Your task to perform on an android device: Go to ESPN.com Image 0: 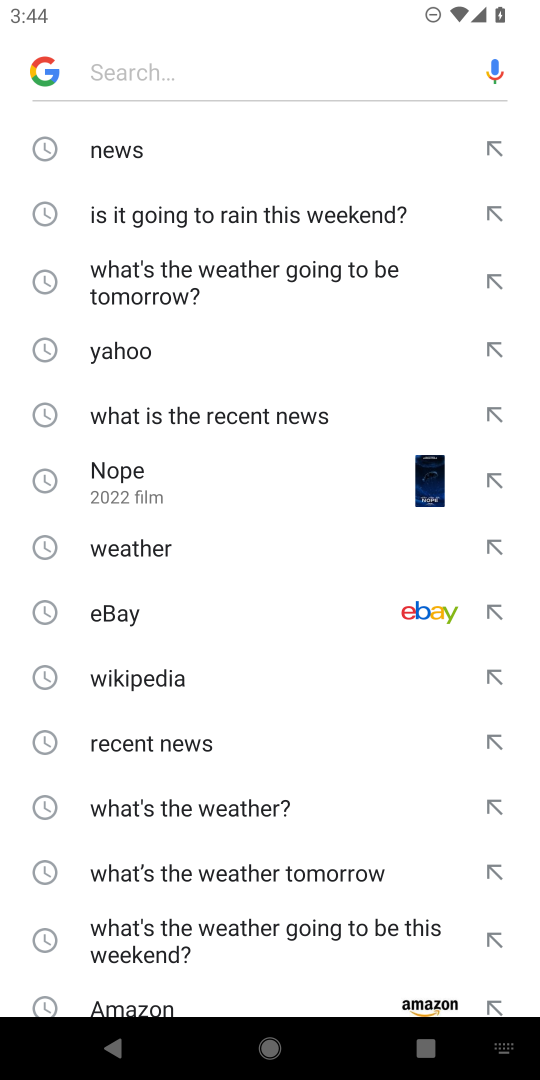
Step 0: press home button
Your task to perform on an android device: Go to ESPN.com Image 1: 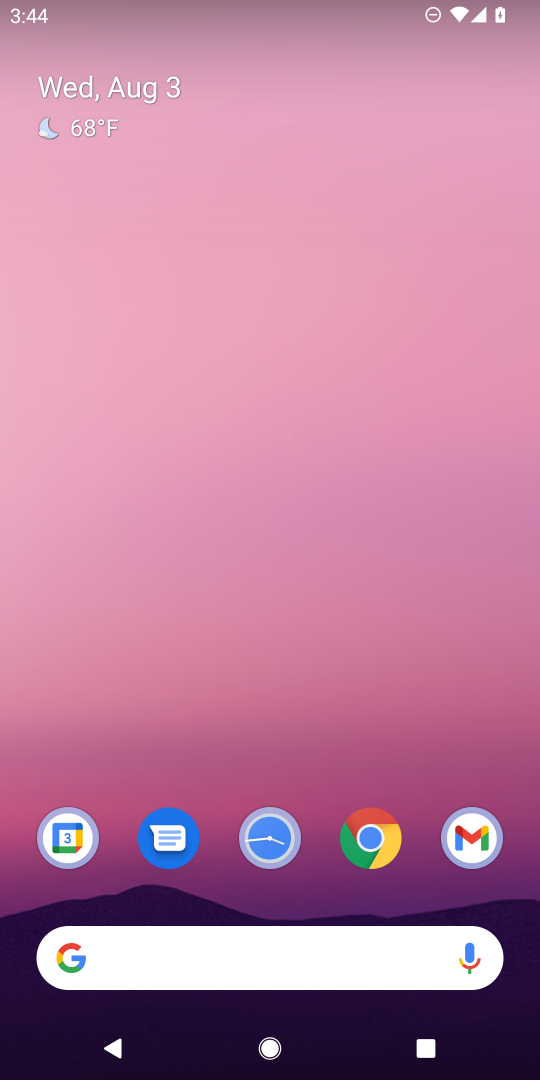
Step 1: click (387, 841)
Your task to perform on an android device: Go to ESPN.com Image 2: 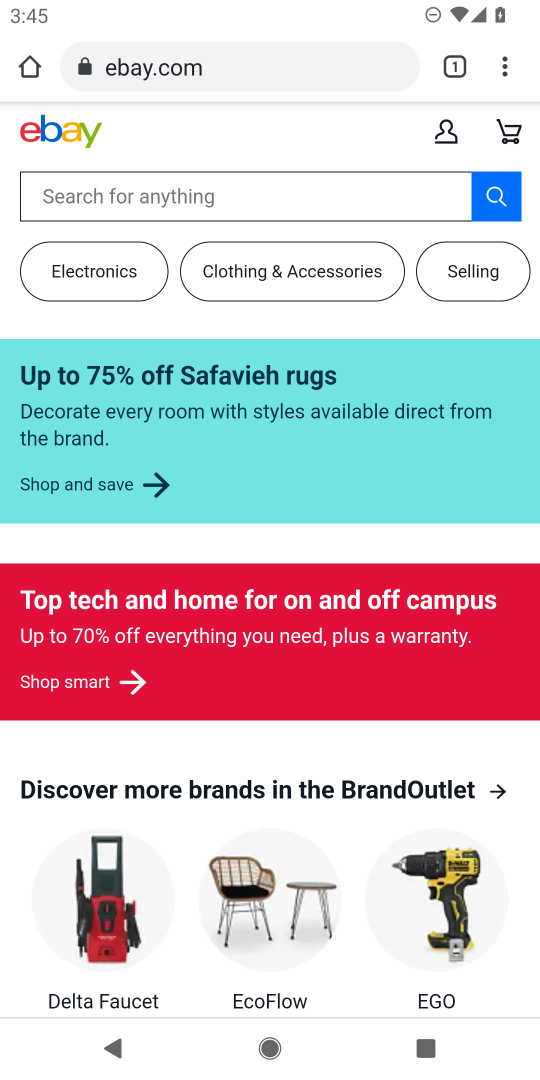
Step 2: click (157, 70)
Your task to perform on an android device: Go to ESPN.com Image 3: 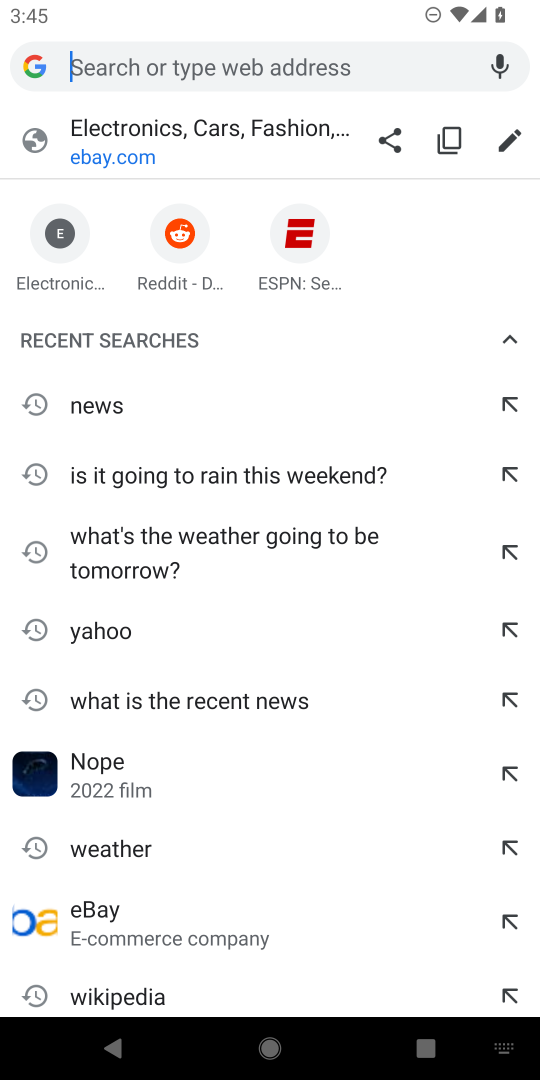
Step 3: type "espn.com"
Your task to perform on an android device: Go to ESPN.com Image 4: 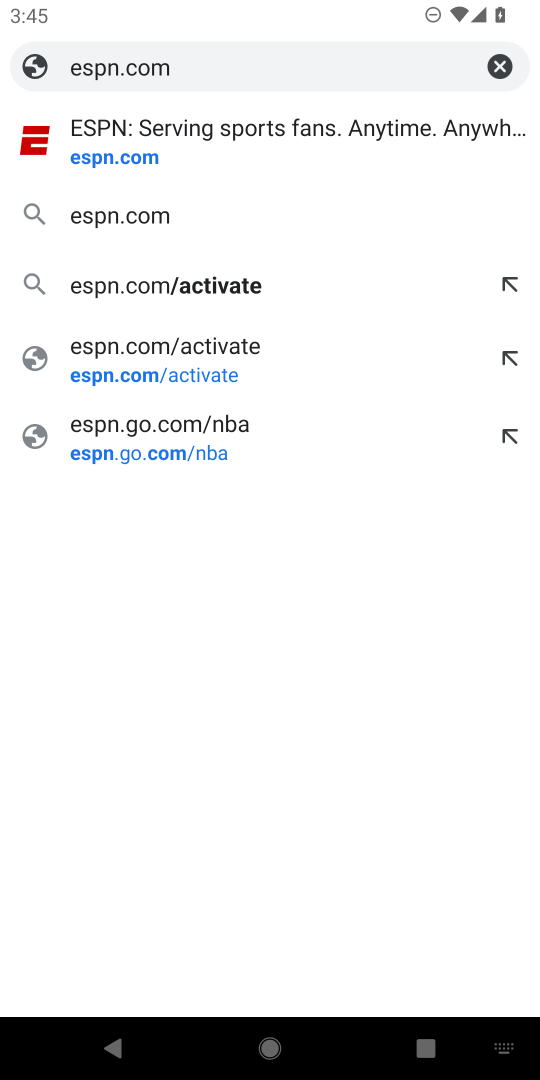
Step 4: click (148, 132)
Your task to perform on an android device: Go to ESPN.com Image 5: 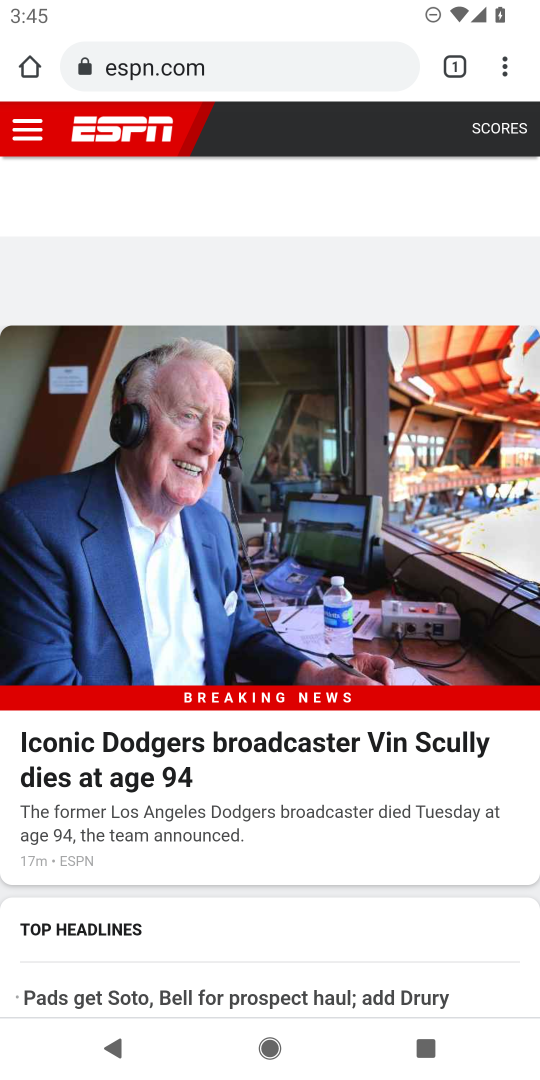
Step 5: task complete